Your task to perform on an android device: turn off translation in the chrome app Image 0: 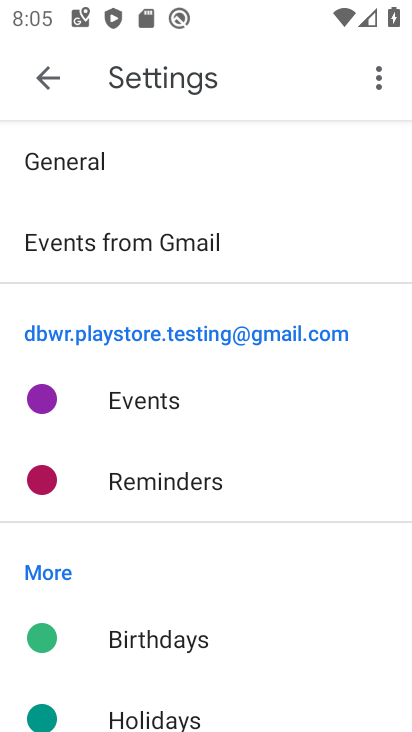
Step 0: press home button
Your task to perform on an android device: turn off translation in the chrome app Image 1: 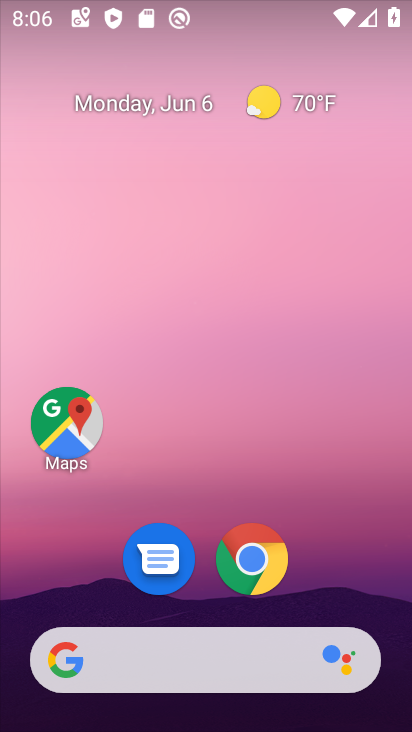
Step 1: click (252, 581)
Your task to perform on an android device: turn off translation in the chrome app Image 2: 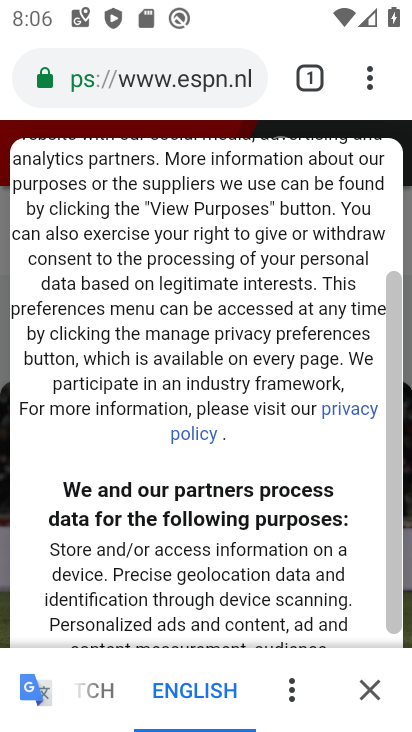
Step 2: click (370, 88)
Your task to perform on an android device: turn off translation in the chrome app Image 3: 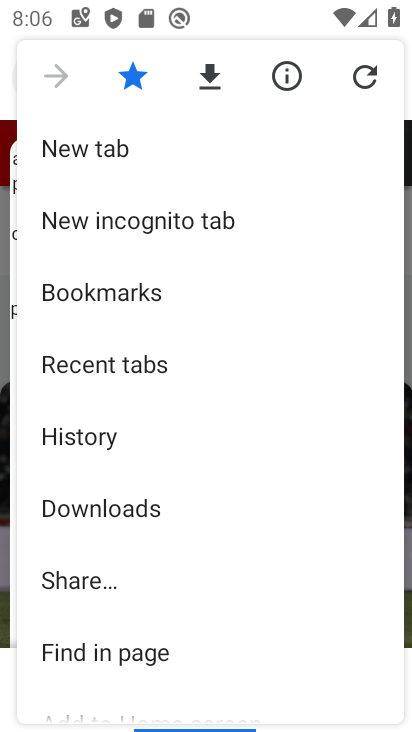
Step 3: drag from (115, 655) to (124, 273)
Your task to perform on an android device: turn off translation in the chrome app Image 4: 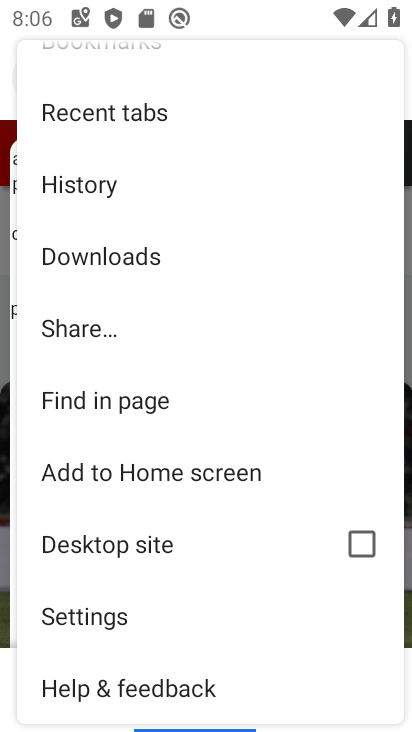
Step 4: click (97, 611)
Your task to perform on an android device: turn off translation in the chrome app Image 5: 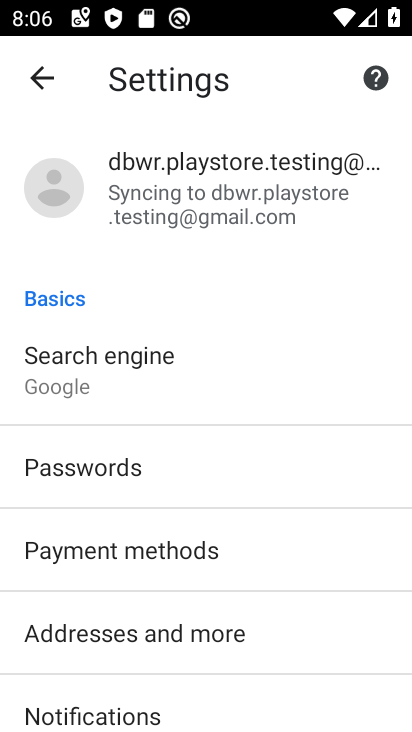
Step 5: drag from (241, 686) to (253, 434)
Your task to perform on an android device: turn off translation in the chrome app Image 6: 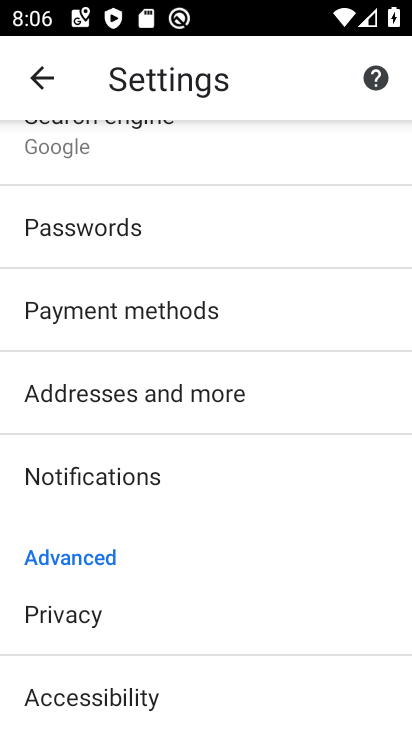
Step 6: drag from (230, 695) to (238, 401)
Your task to perform on an android device: turn off translation in the chrome app Image 7: 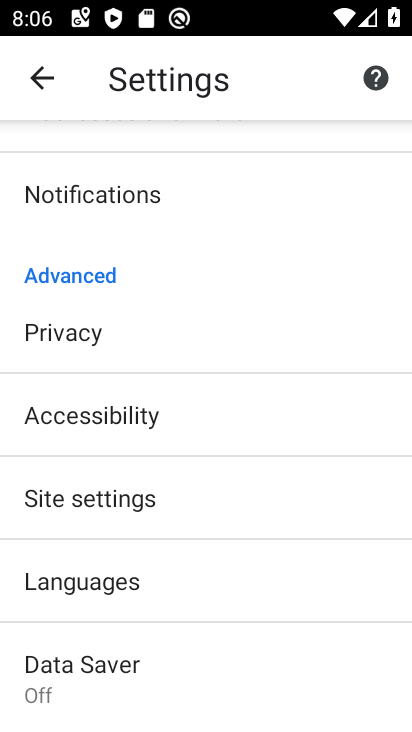
Step 7: drag from (186, 681) to (206, 502)
Your task to perform on an android device: turn off translation in the chrome app Image 8: 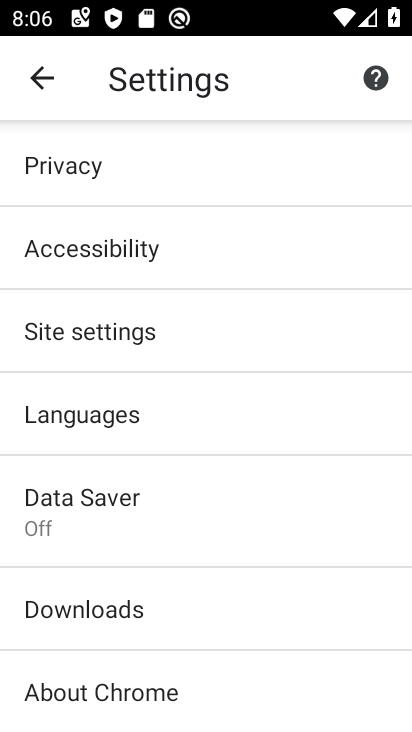
Step 8: click (163, 425)
Your task to perform on an android device: turn off translation in the chrome app Image 9: 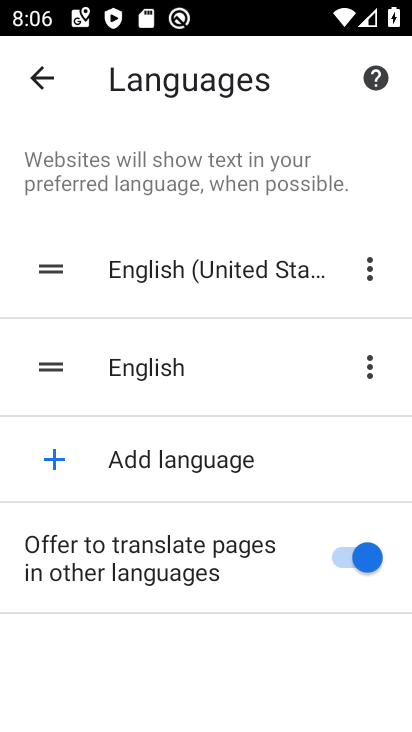
Step 9: click (344, 550)
Your task to perform on an android device: turn off translation in the chrome app Image 10: 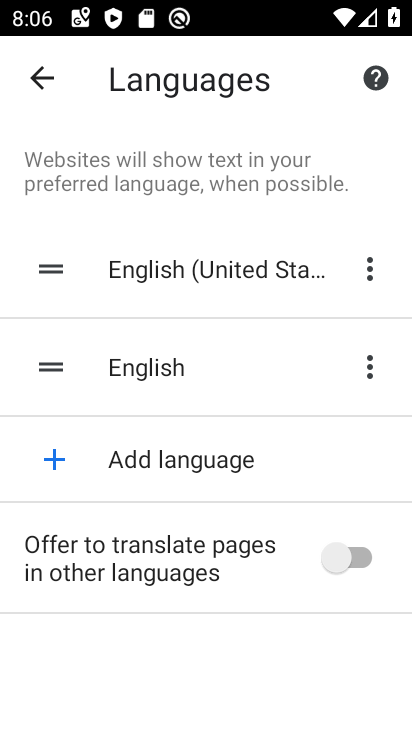
Step 10: task complete